Your task to perform on an android device: Show me recent news Image 0: 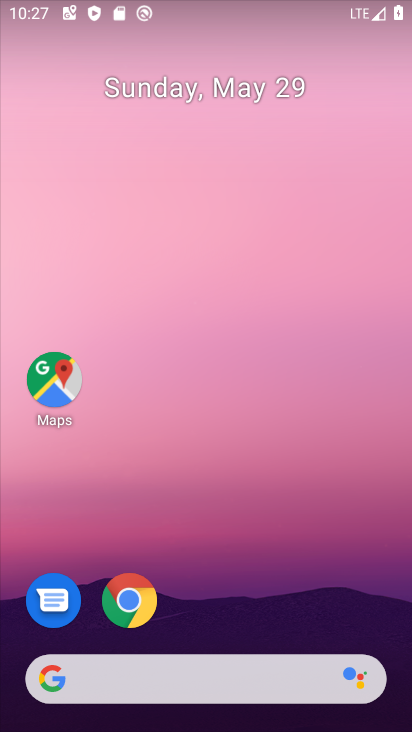
Step 0: drag from (87, 726) to (219, 727)
Your task to perform on an android device: Show me recent news Image 1: 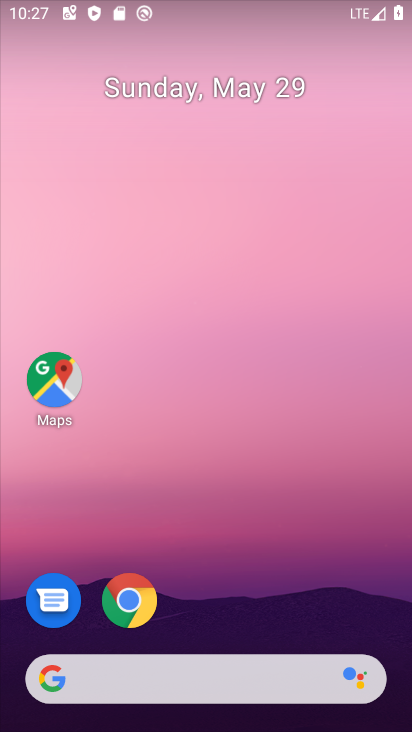
Step 1: click (153, 619)
Your task to perform on an android device: Show me recent news Image 2: 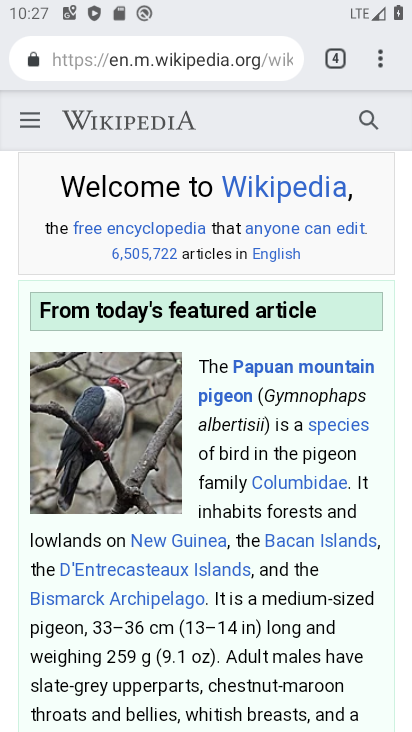
Step 2: click (182, 58)
Your task to perform on an android device: Show me recent news Image 3: 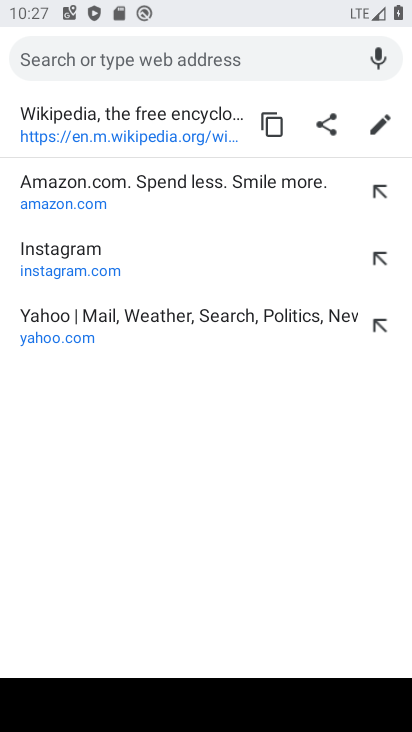
Step 3: type "Show me recent news"
Your task to perform on an android device: Show me recent news Image 4: 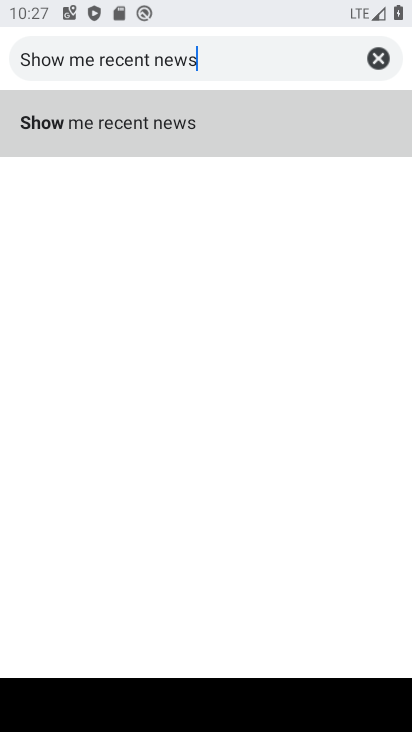
Step 4: type ""
Your task to perform on an android device: Show me recent news Image 5: 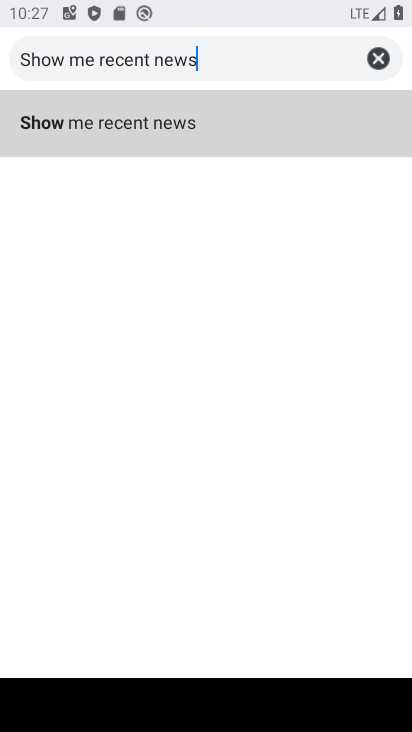
Step 5: click (128, 124)
Your task to perform on an android device: Show me recent news Image 6: 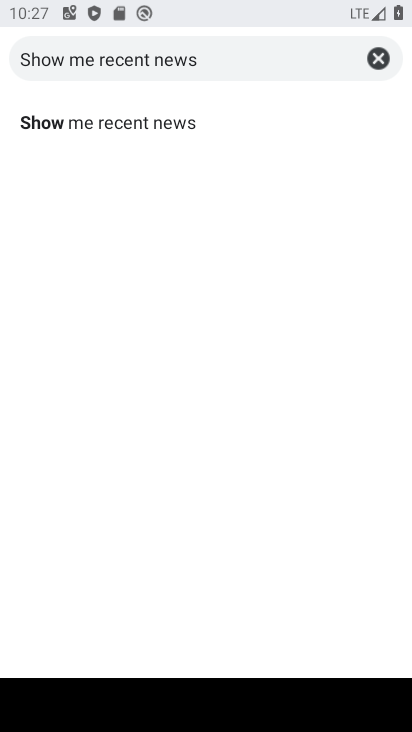
Step 6: click (122, 132)
Your task to perform on an android device: Show me recent news Image 7: 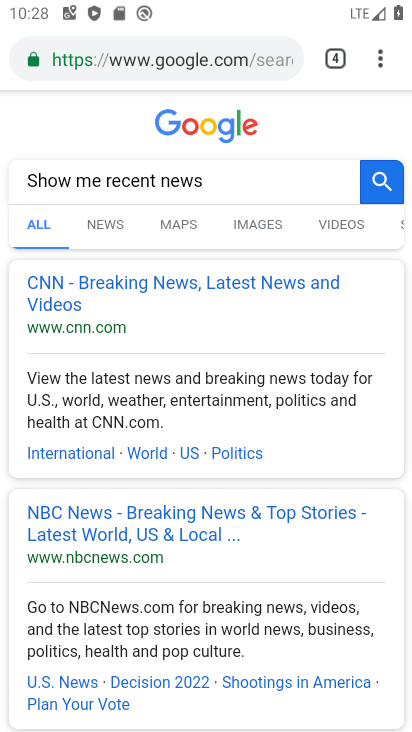
Step 7: task complete